Your task to perform on an android device: toggle translation in the chrome app Image 0: 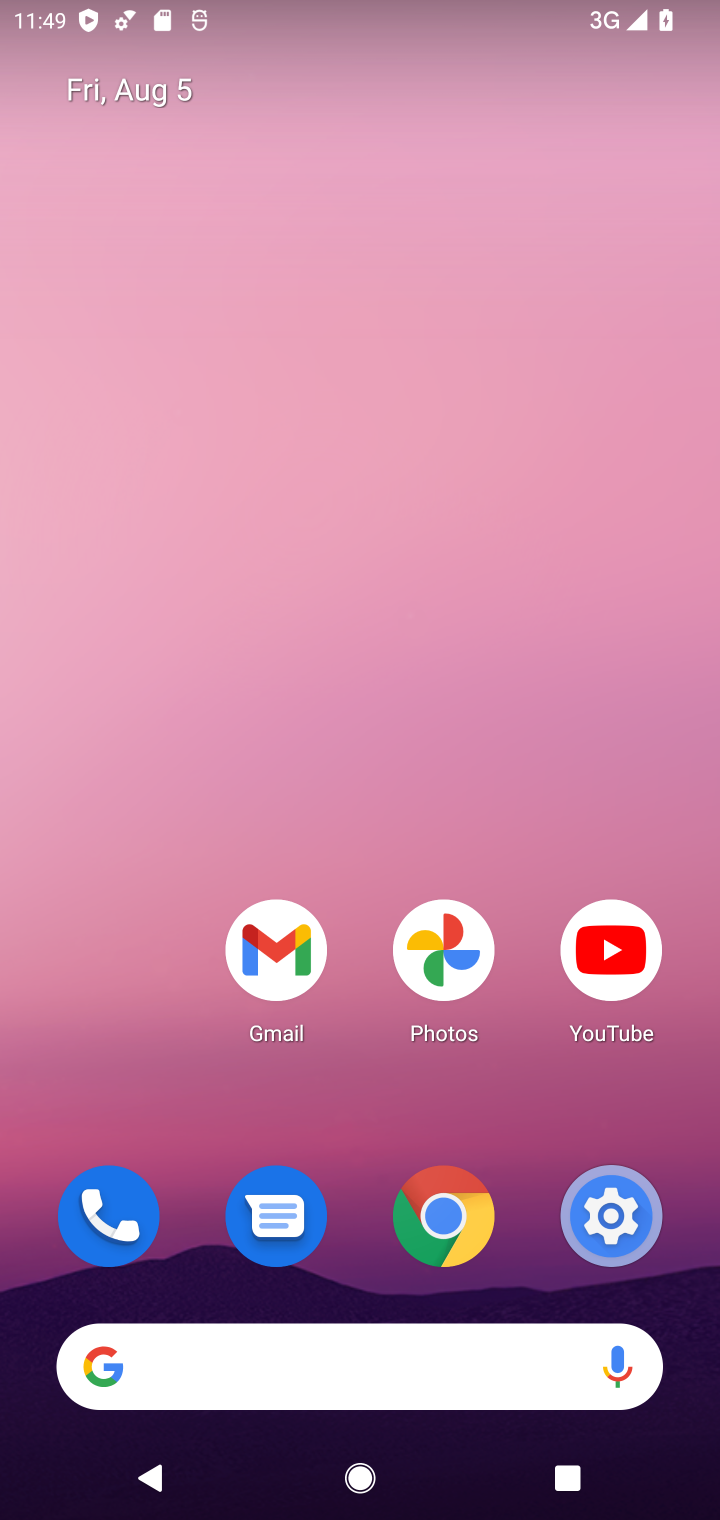
Step 0: drag from (359, 1391) to (42, 458)
Your task to perform on an android device: toggle translation in the chrome app Image 1: 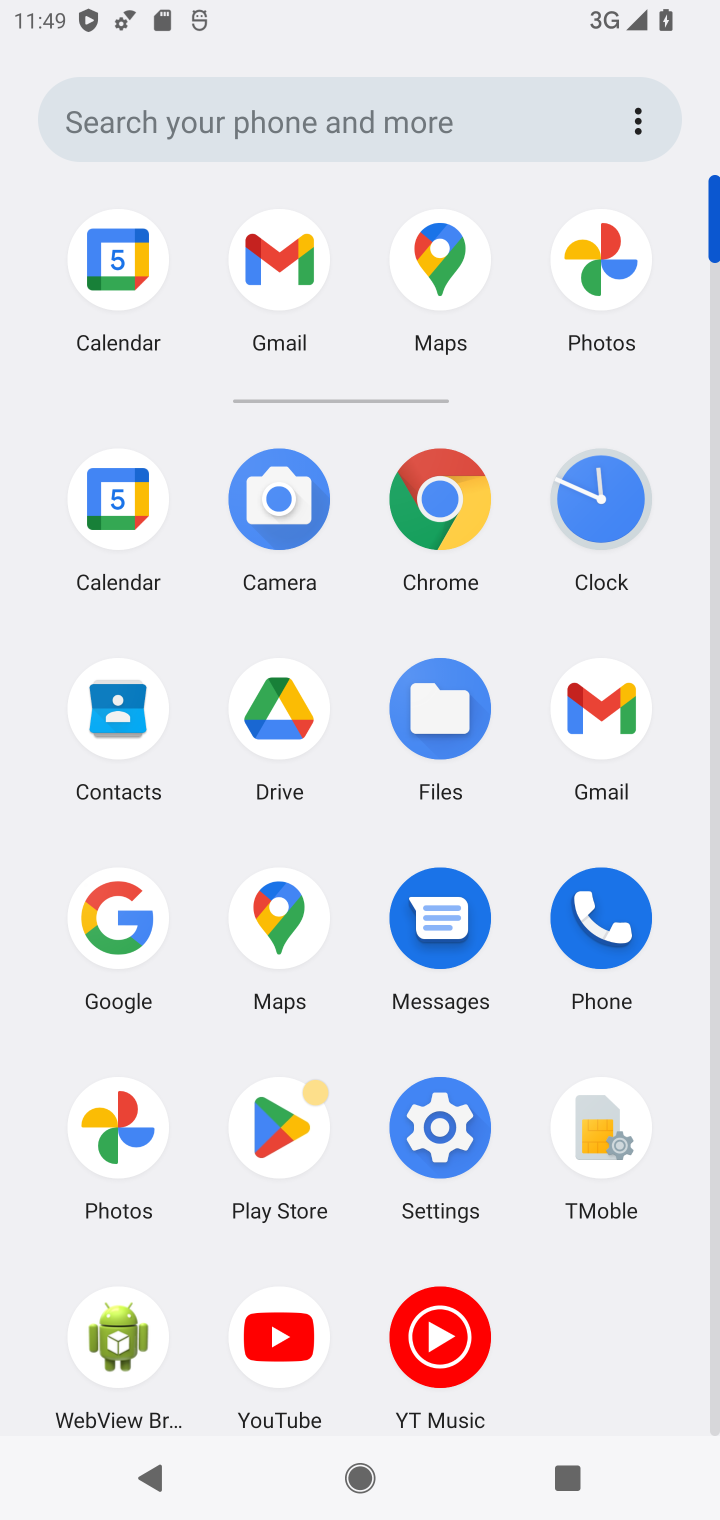
Step 1: click (461, 475)
Your task to perform on an android device: toggle translation in the chrome app Image 2: 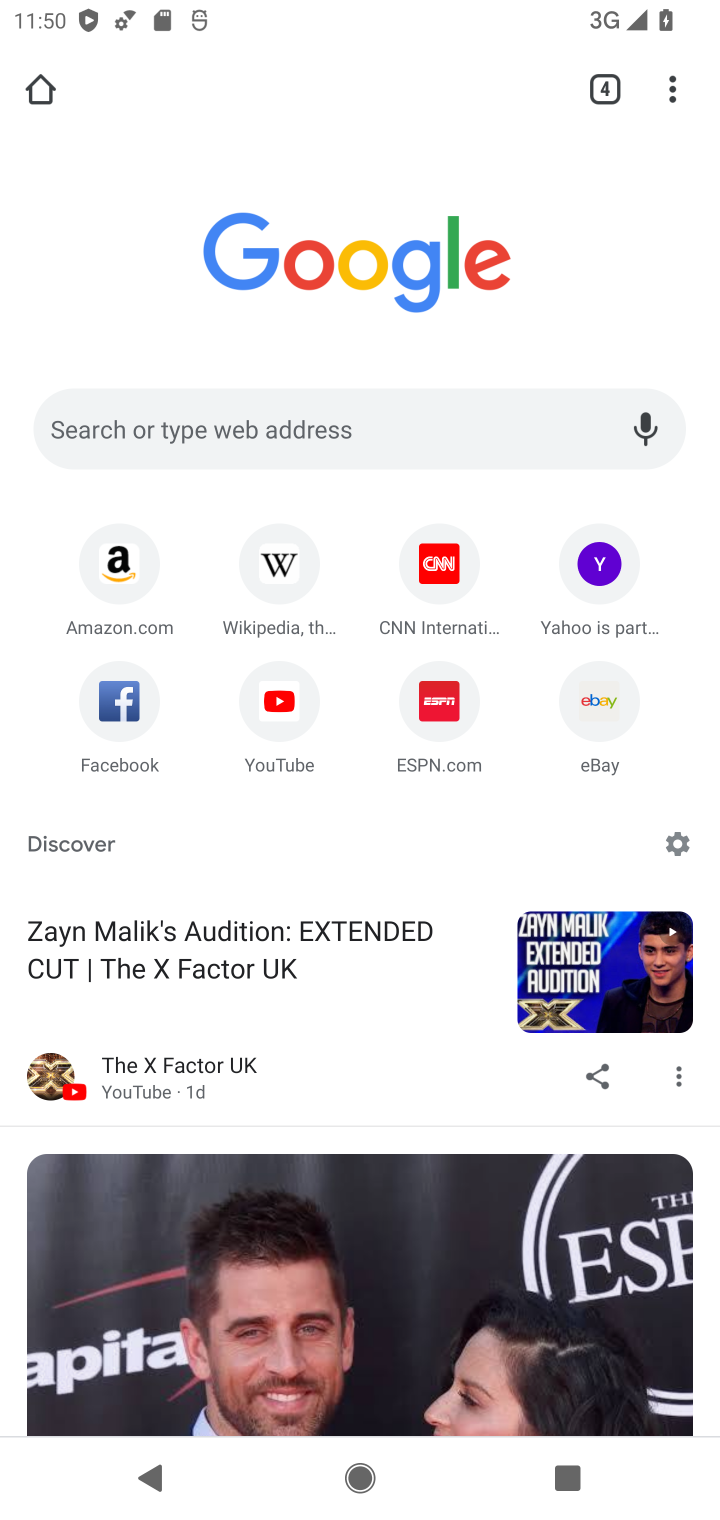
Step 2: click (675, 72)
Your task to perform on an android device: toggle translation in the chrome app Image 3: 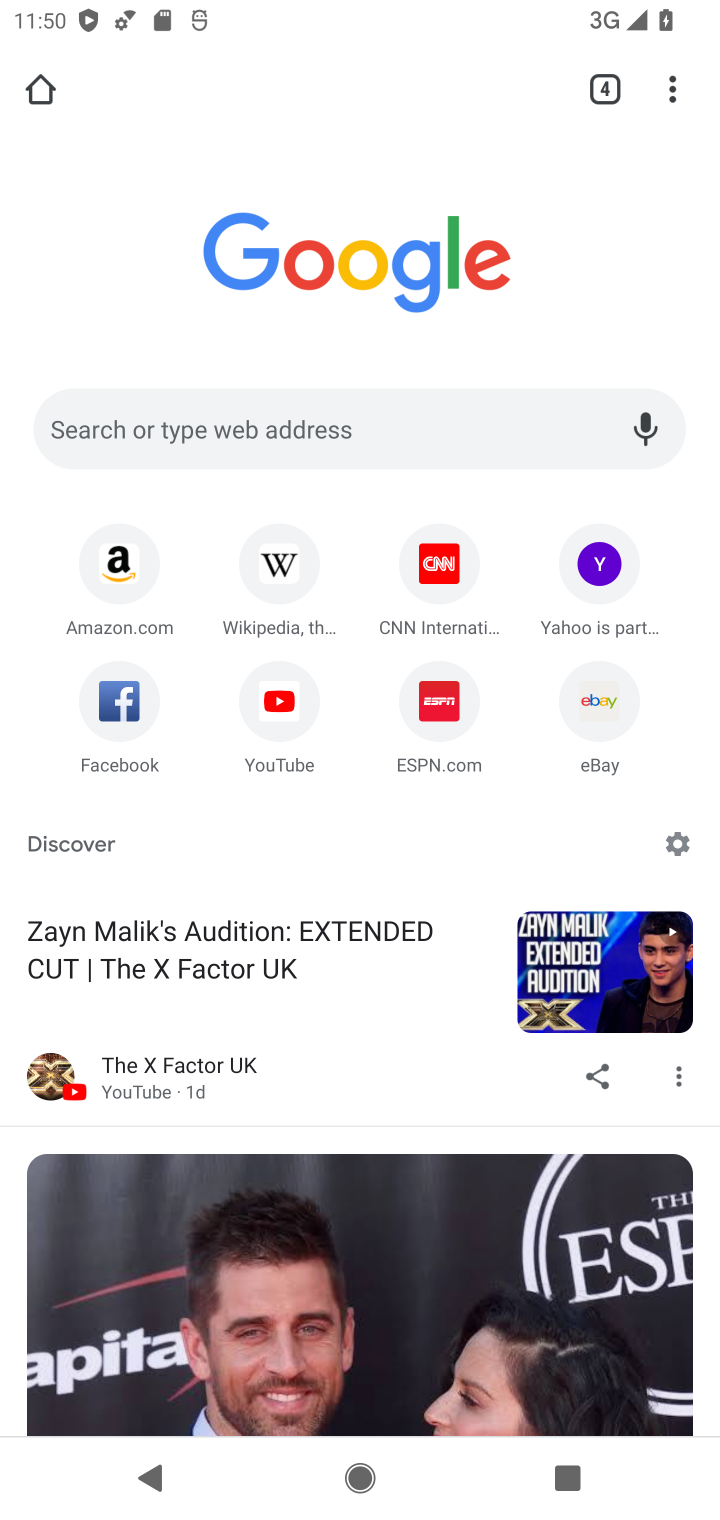
Step 3: click (661, 80)
Your task to perform on an android device: toggle translation in the chrome app Image 4: 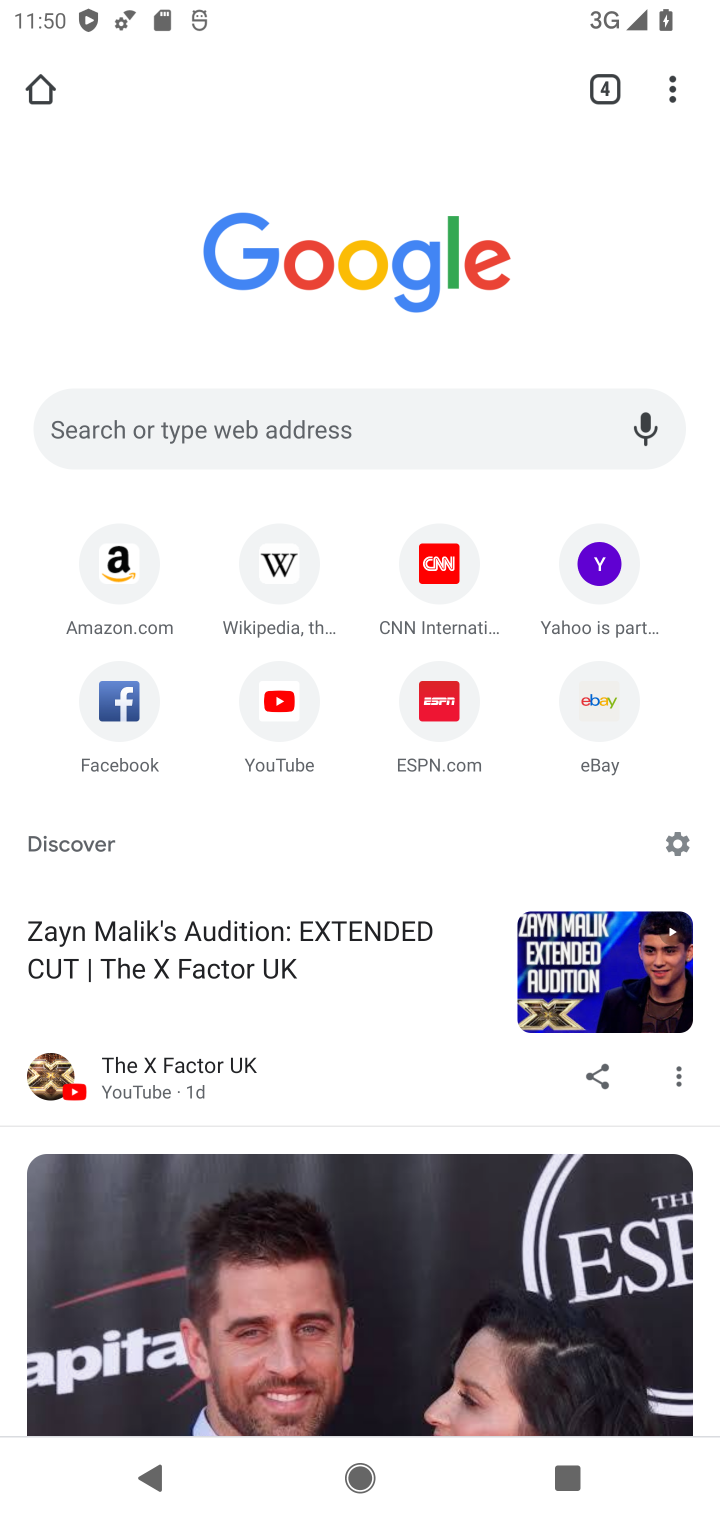
Step 4: drag from (660, 72) to (431, 907)
Your task to perform on an android device: toggle translation in the chrome app Image 5: 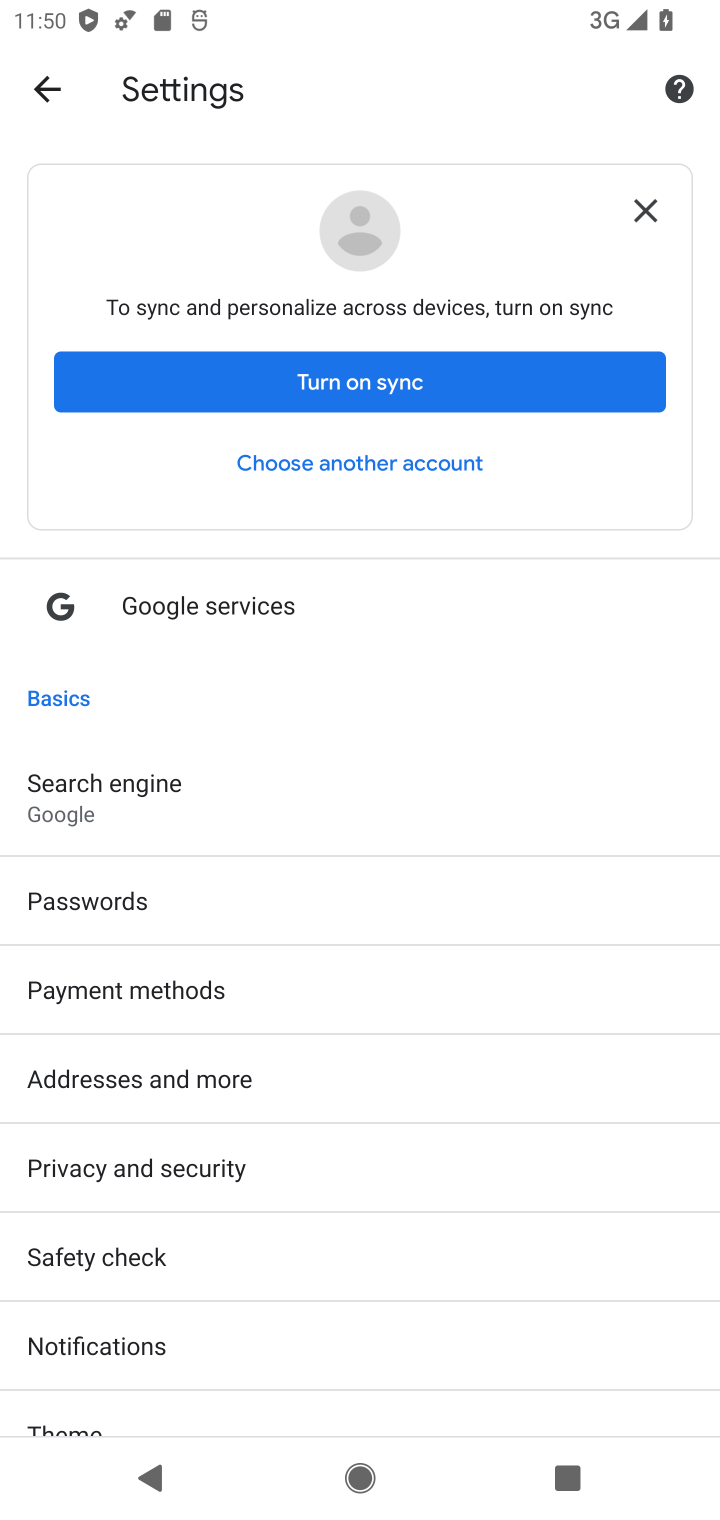
Step 5: drag from (332, 1329) to (36, 685)
Your task to perform on an android device: toggle translation in the chrome app Image 6: 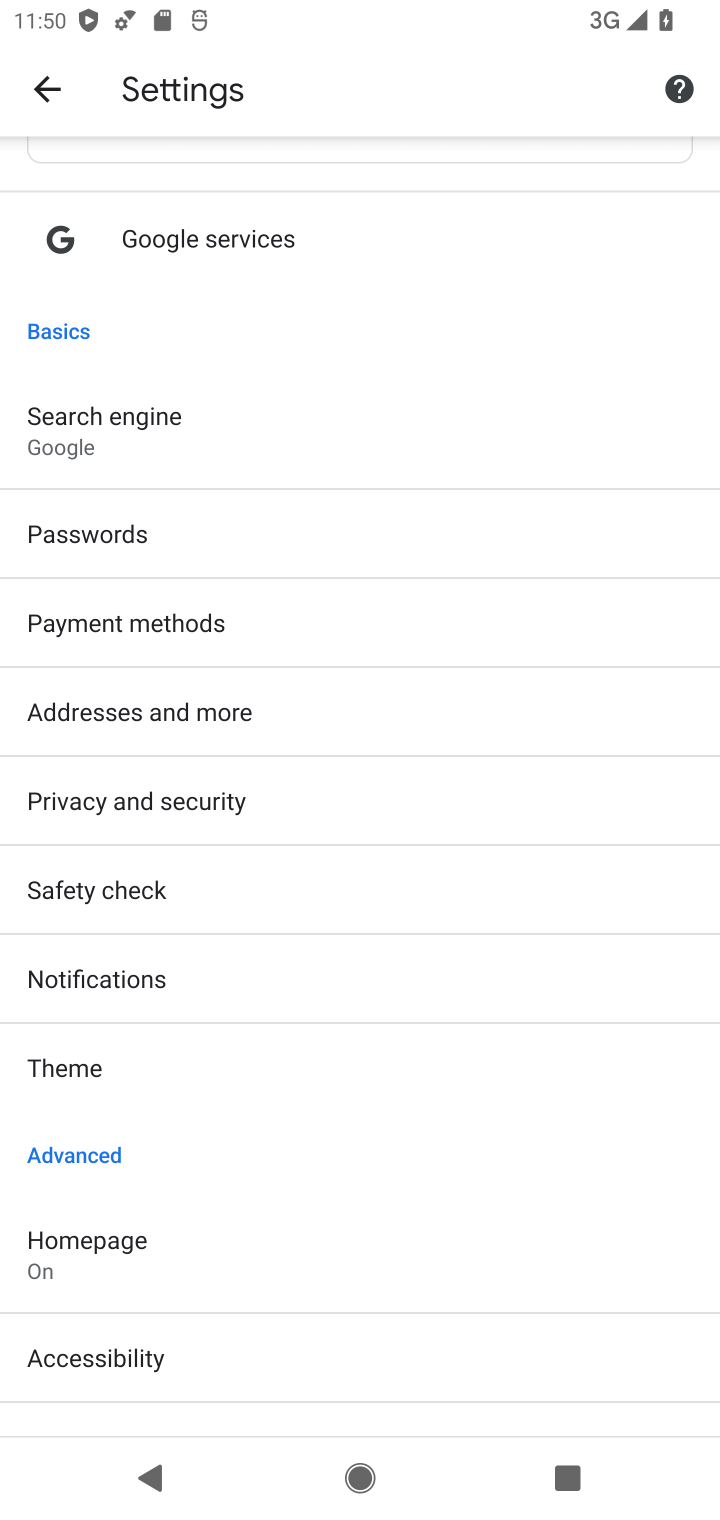
Step 6: drag from (360, 1247) to (526, 169)
Your task to perform on an android device: toggle translation in the chrome app Image 7: 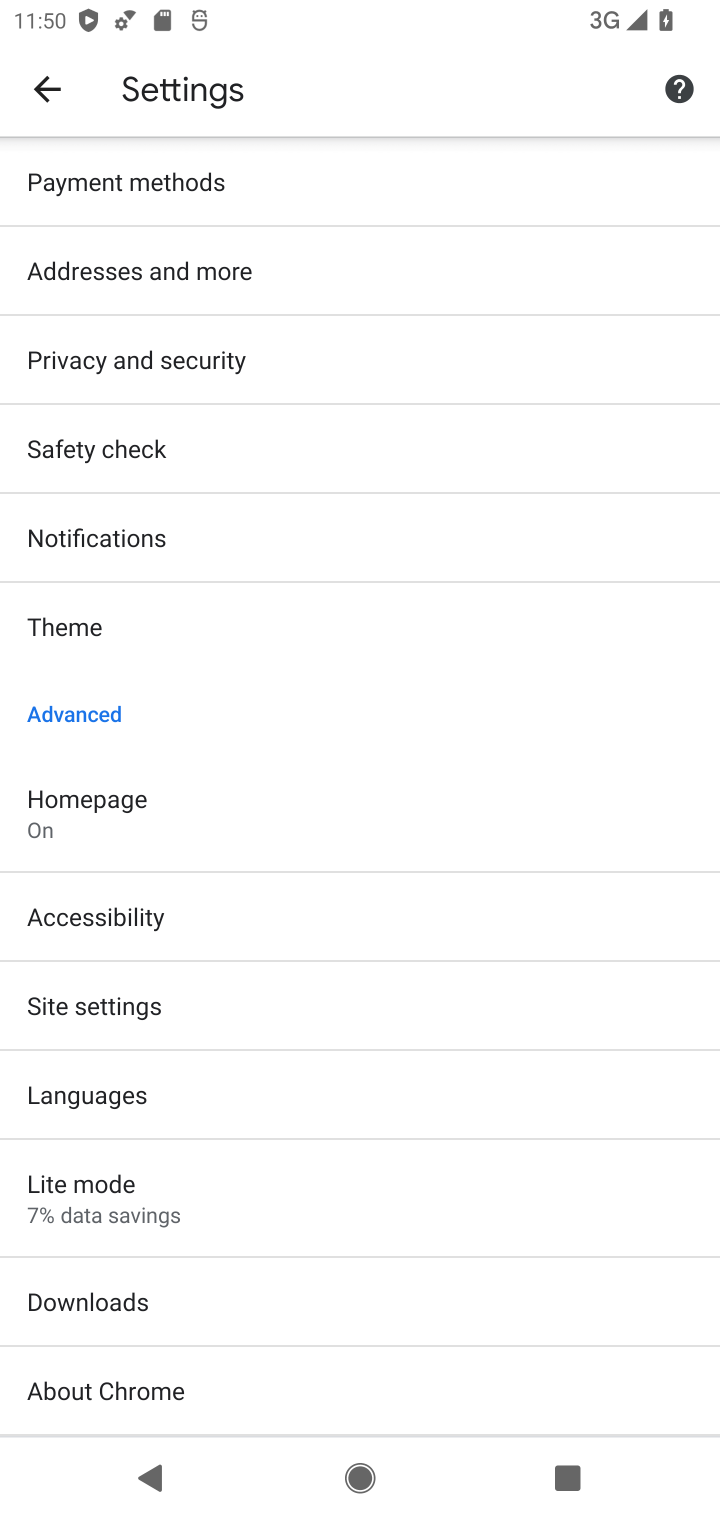
Step 7: click (173, 1101)
Your task to perform on an android device: toggle translation in the chrome app Image 8: 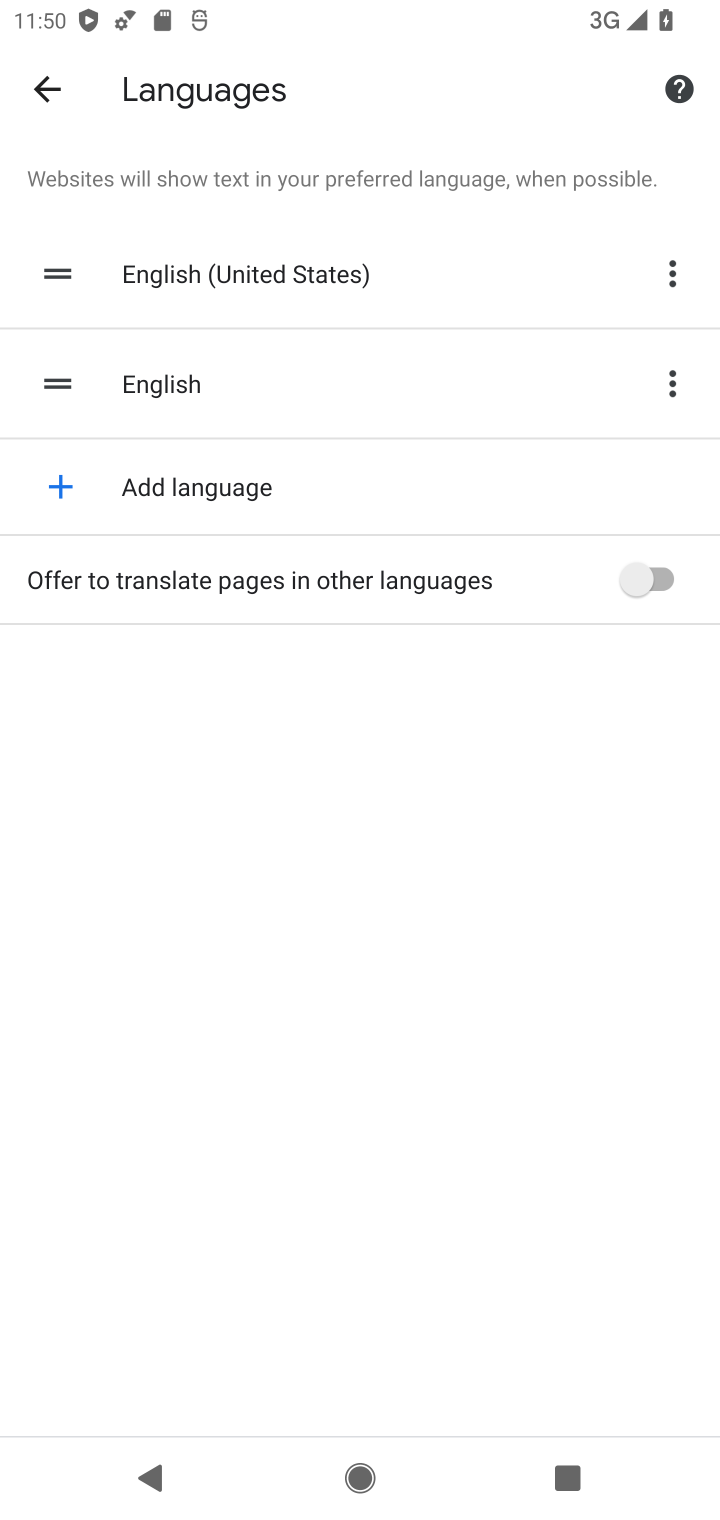
Step 8: click (656, 570)
Your task to perform on an android device: toggle translation in the chrome app Image 9: 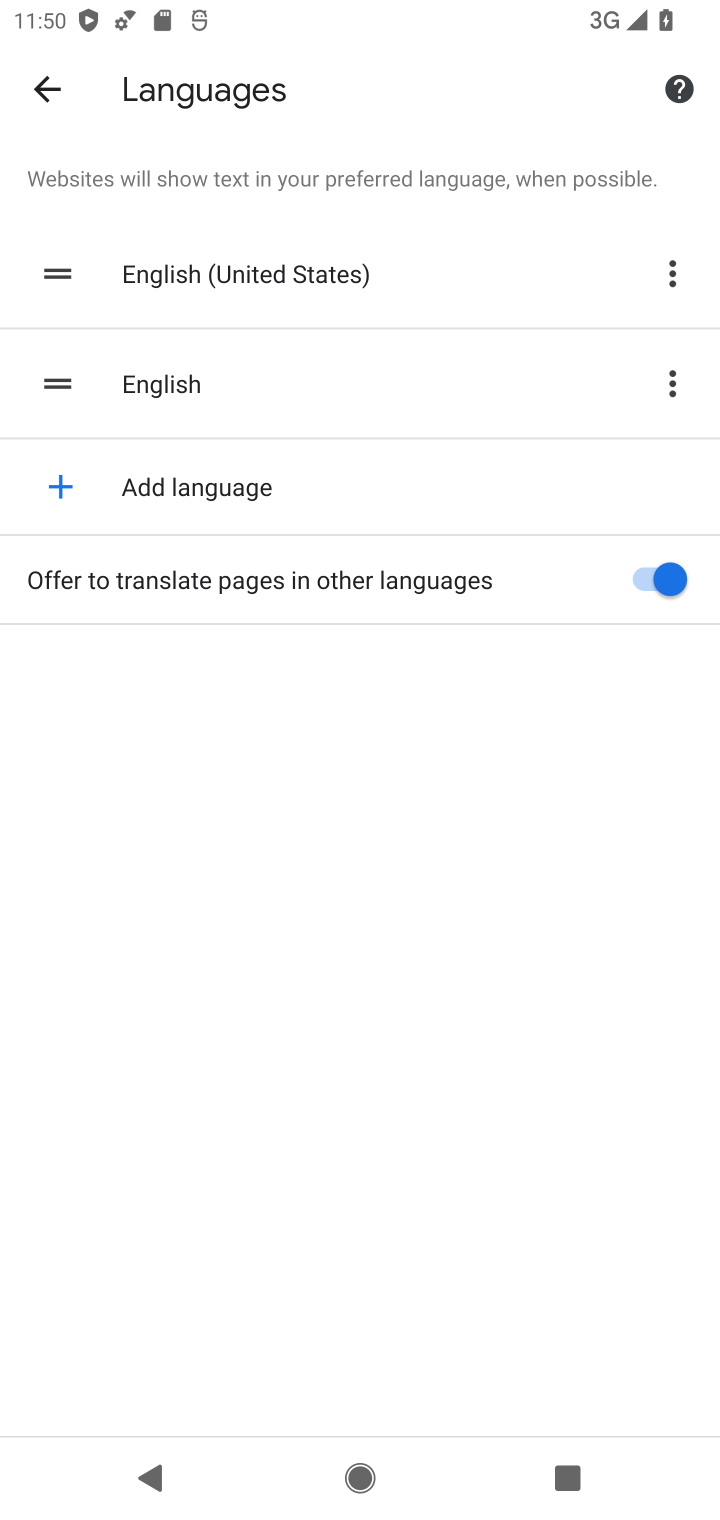
Step 9: task complete